Your task to perform on an android device: Search for the best rated vacuums on Target Image 0: 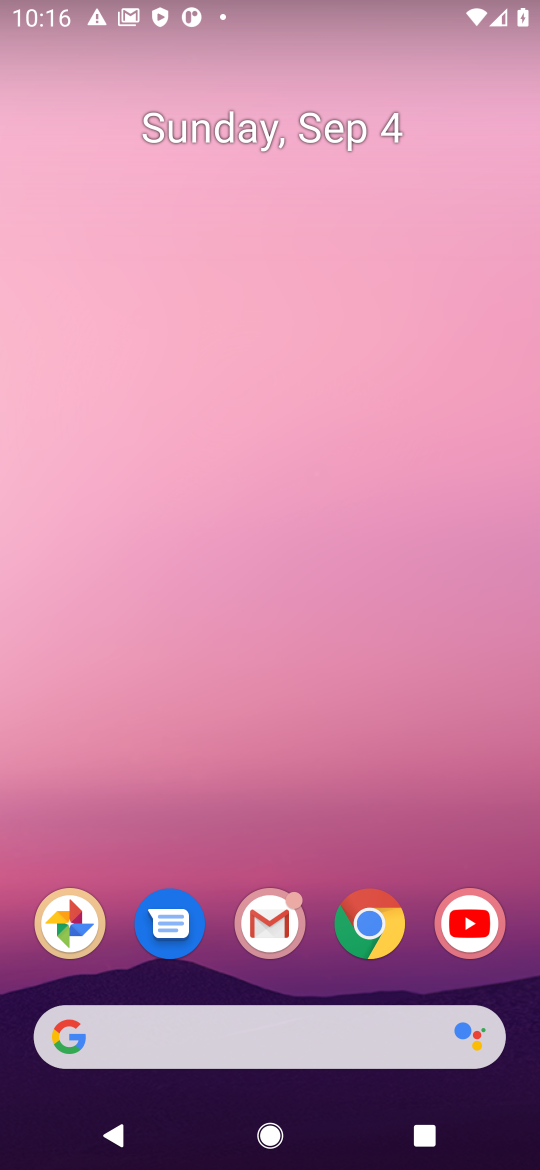
Step 0: click (390, 1034)
Your task to perform on an android device: Search for the best rated vacuums on Target Image 1: 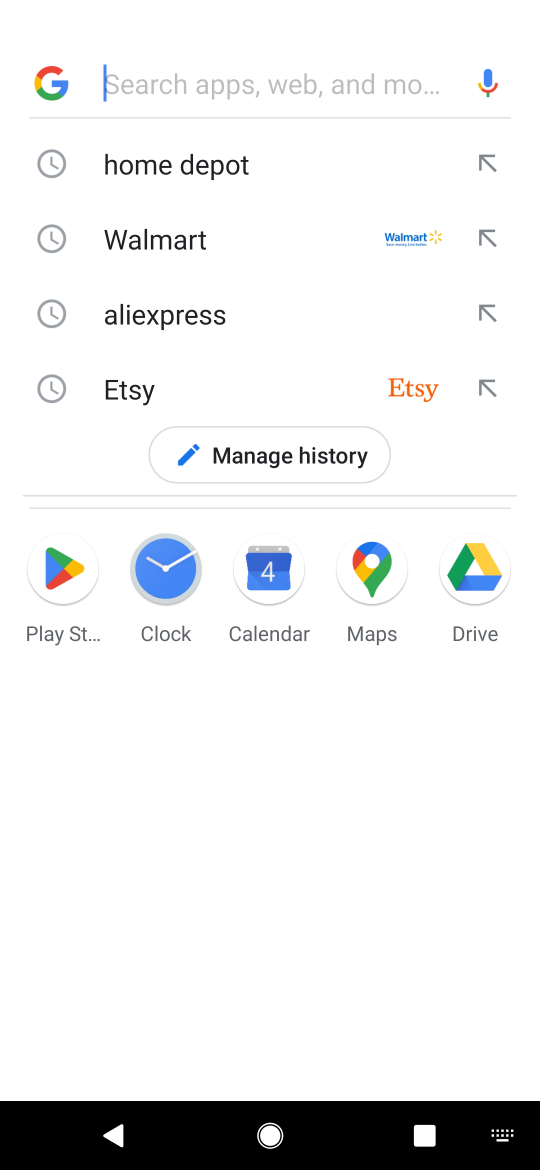
Step 1: press enter
Your task to perform on an android device: Search for the best rated vacuums on Target Image 2: 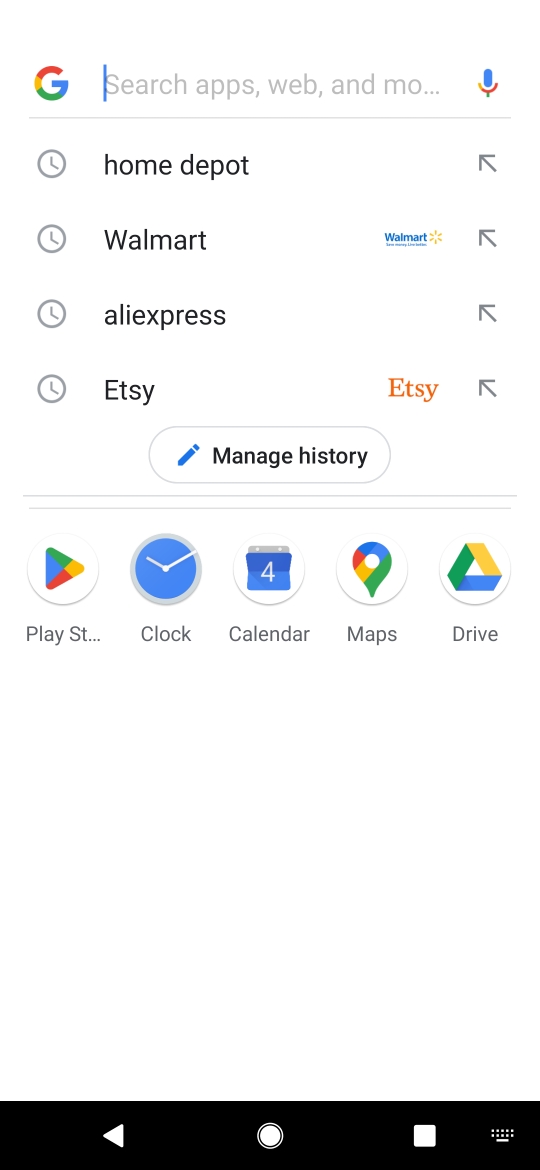
Step 2: type "target"
Your task to perform on an android device: Search for the best rated vacuums on Target Image 3: 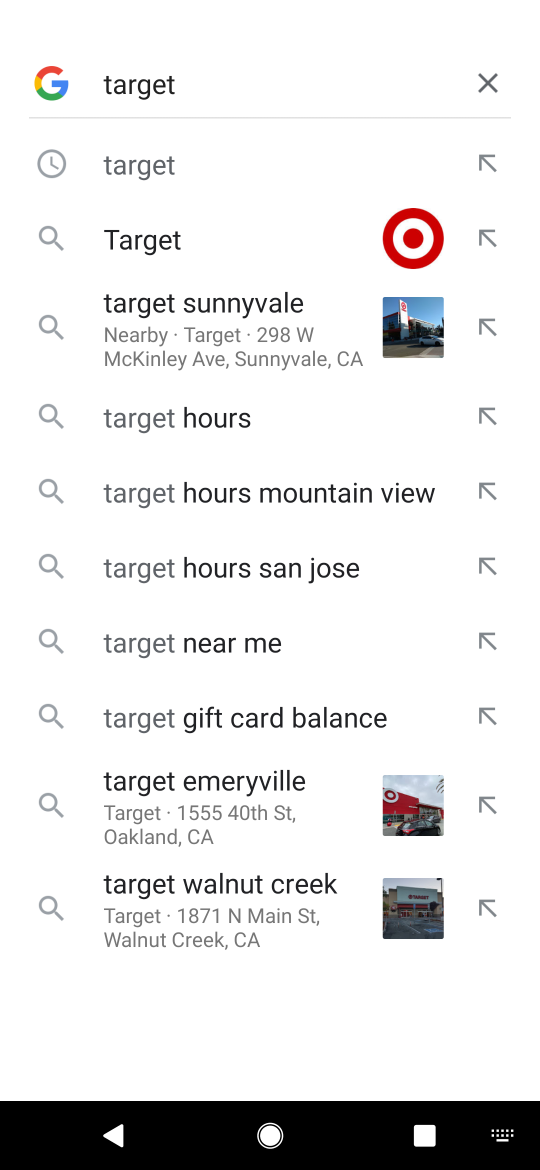
Step 3: click (170, 164)
Your task to perform on an android device: Search for the best rated vacuums on Target Image 4: 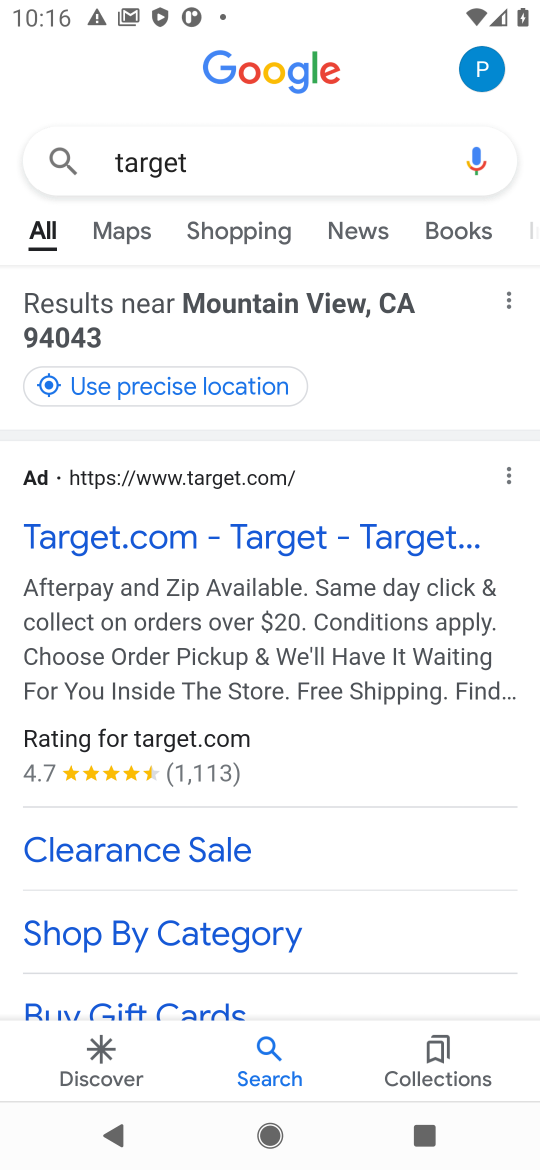
Step 4: click (270, 537)
Your task to perform on an android device: Search for the best rated vacuums on Target Image 5: 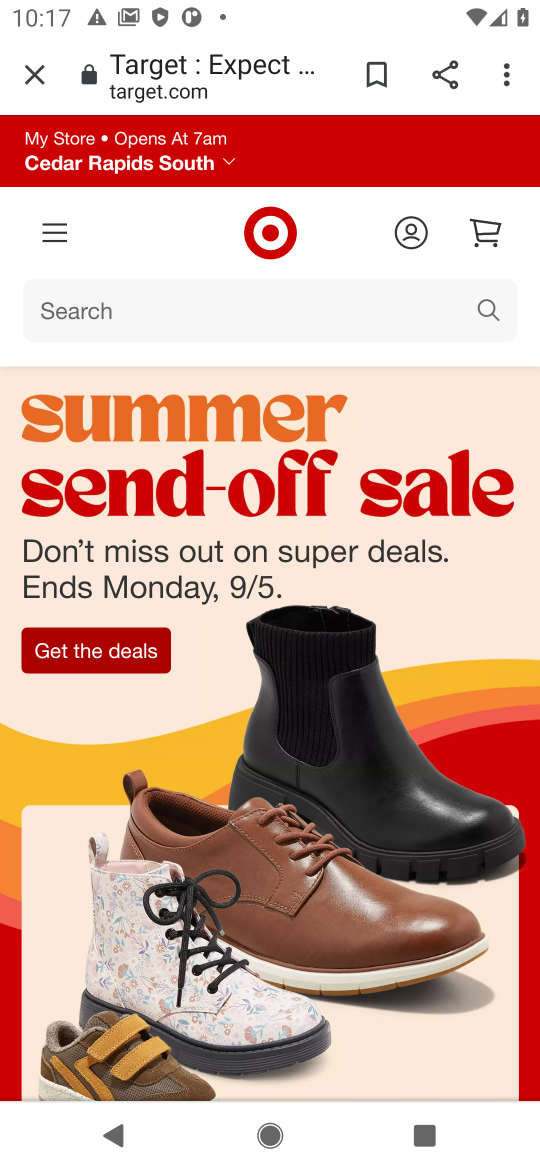
Step 5: click (147, 305)
Your task to perform on an android device: Search for the best rated vacuums on Target Image 6: 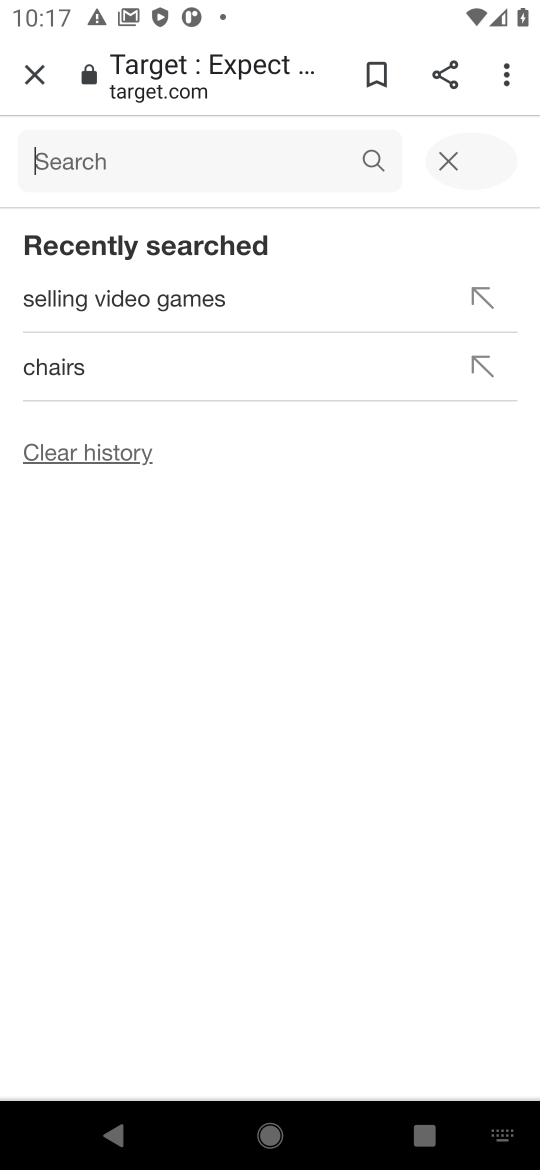
Step 6: press enter
Your task to perform on an android device: Search for the best rated vacuums on Target Image 7: 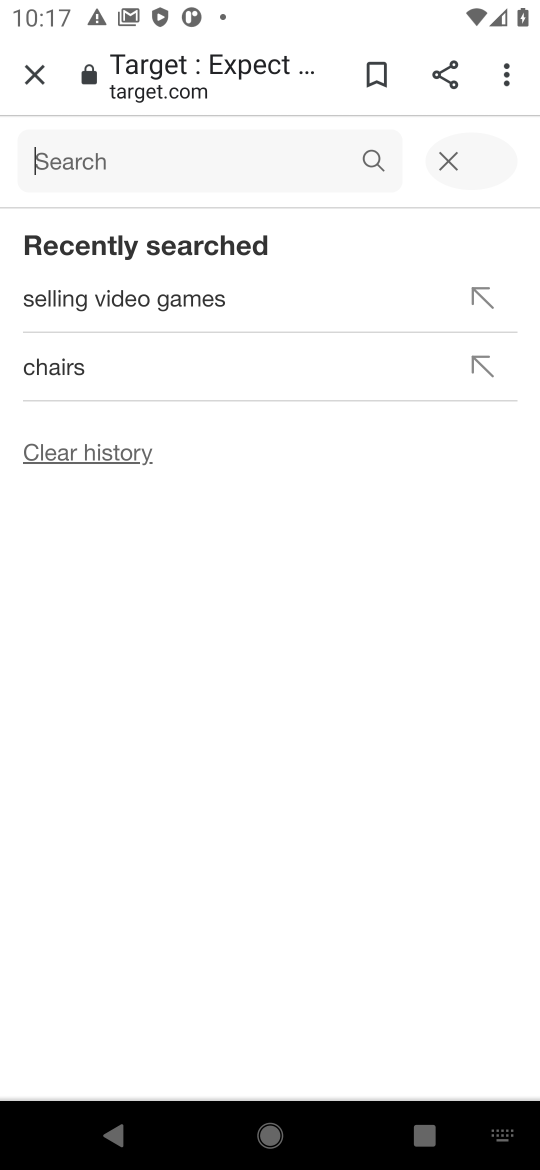
Step 7: type "best rated vacuums"
Your task to perform on an android device: Search for the best rated vacuums on Target Image 8: 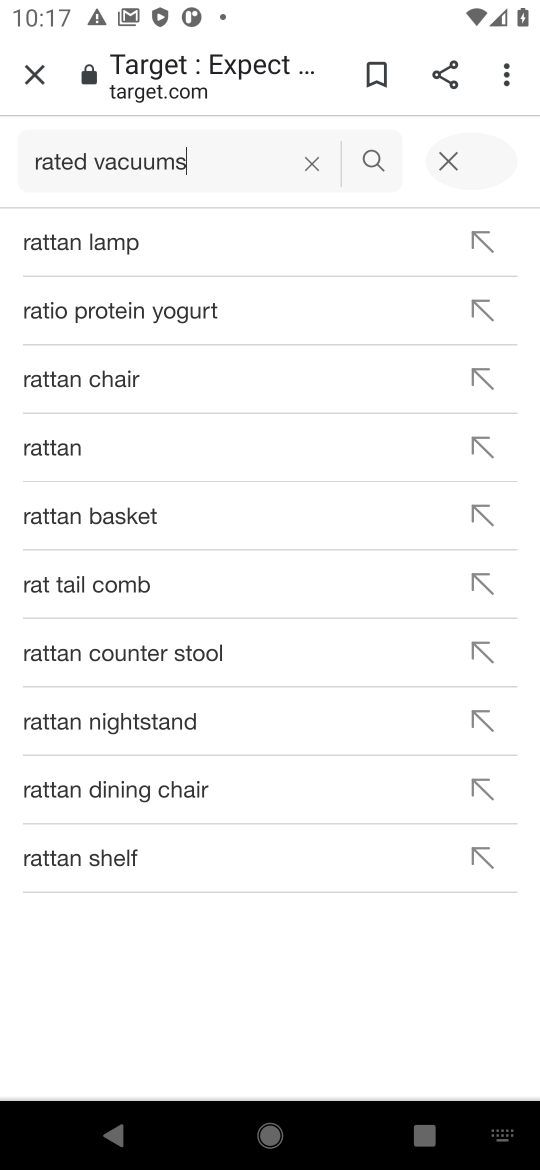
Step 8: click (376, 149)
Your task to perform on an android device: Search for the best rated vacuums on Target Image 9: 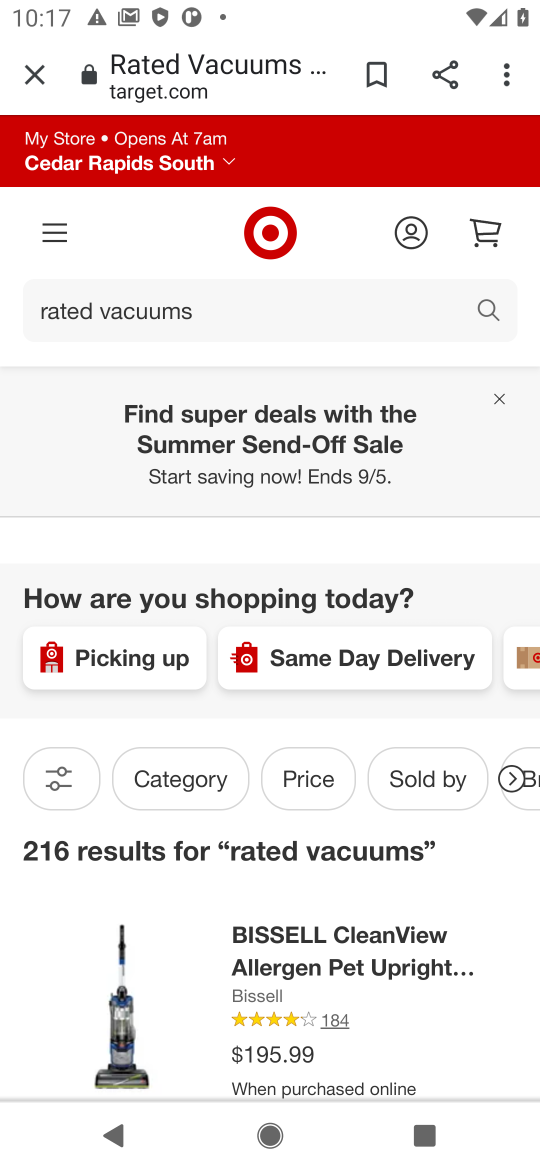
Step 9: task complete